Your task to perform on an android device: Open calendar and show me the fourth week of next month Image 0: 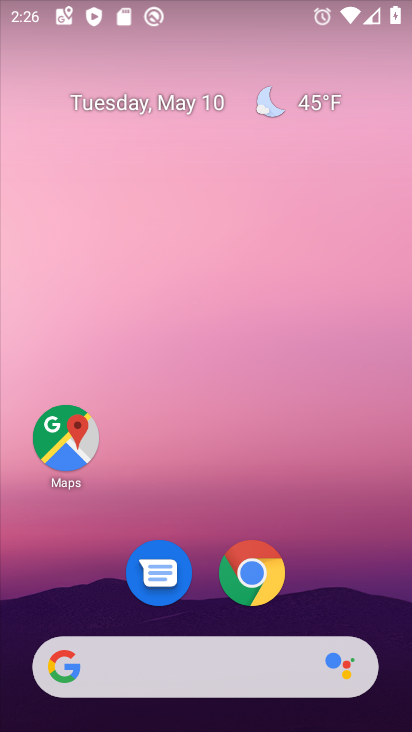
Step 0: drag from (185, 716) to (192, 83)
Your task to perform on an android device: Open calendar and show me the fourth week of next month Image 1: 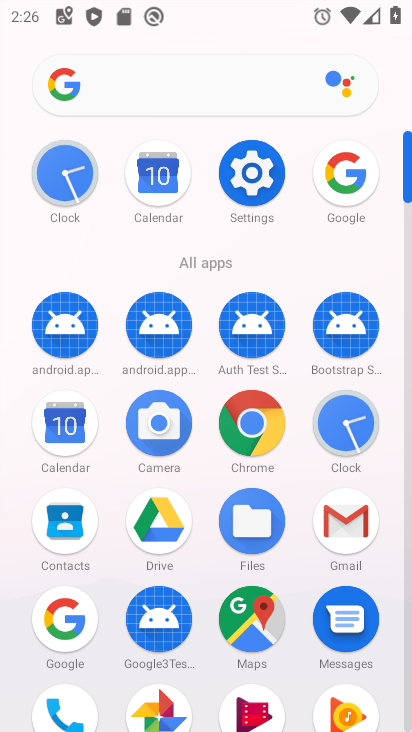
Step 1: click (73, 424)
Your task to perform on an android device: Open calendar and show me the fourth week of next month Image 2: 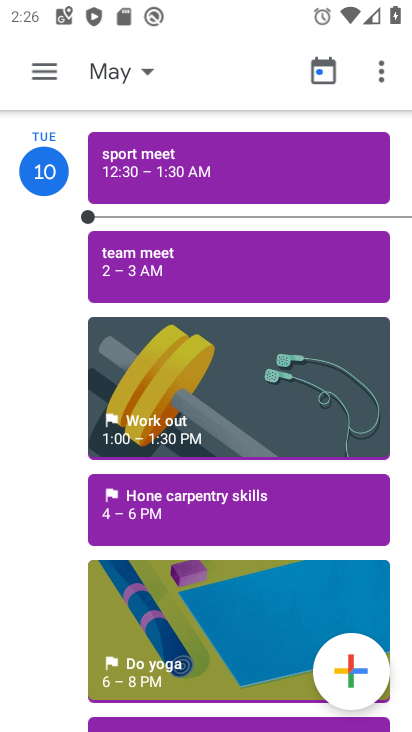
Step 2: drag from (119, 69) to (191, 488)
Your task to perform on an android device: Open calendar and show me the fourth week of next month Image 3: 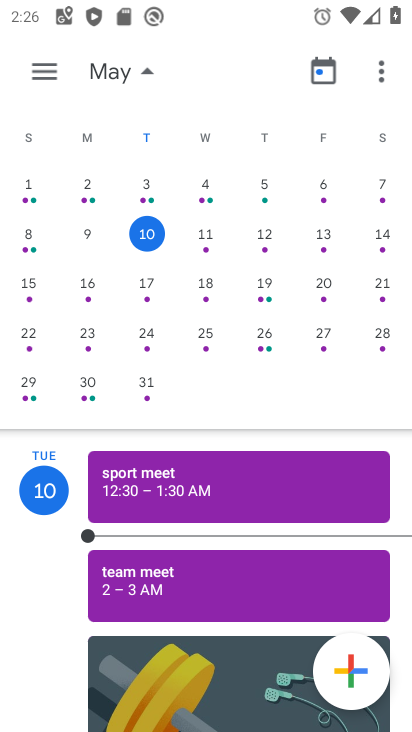
Step 3: drag from (296, 257) to (5, 382)
Your task to perform on an android device: Open calendar and show me the fourth week of next month Image 4: 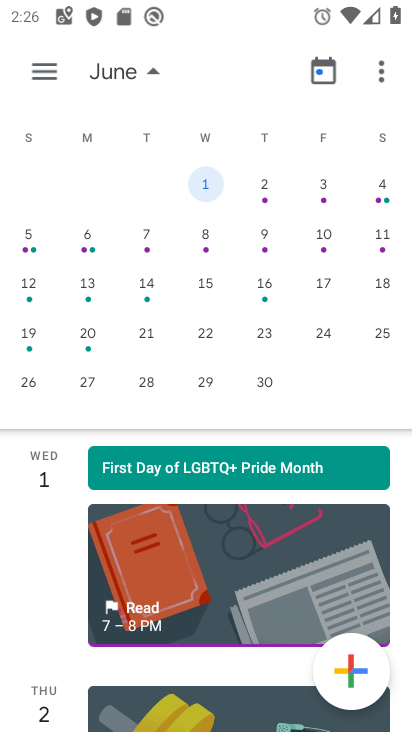
Step 4: click (23, 327)
Your task to perform on an android device: Open calendar and show me the fourth week of next month Image 5: 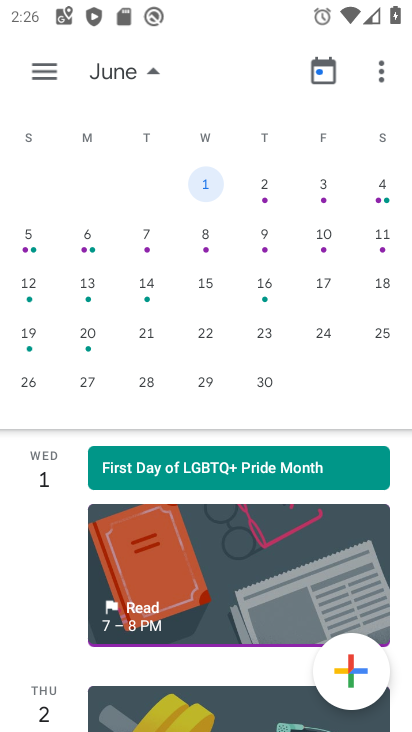
Step 5: click (33, 341)
Your task to perform on an android device: Open calendar and show me the fourth week of next month Image 6: 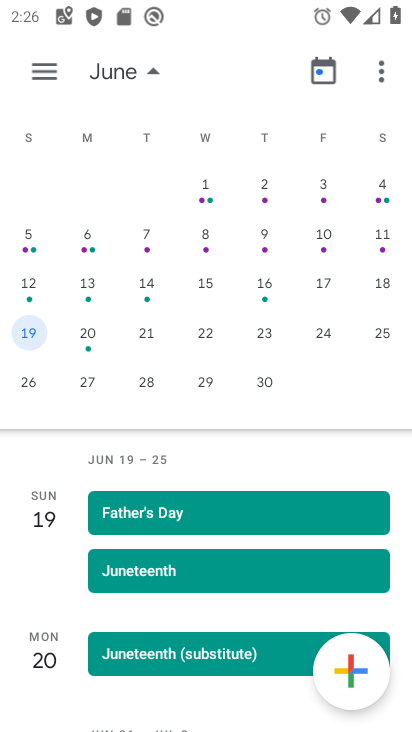
Step 6: task complete